Your task to perform on an android device: refresh tabs in the chrome app Image 0: 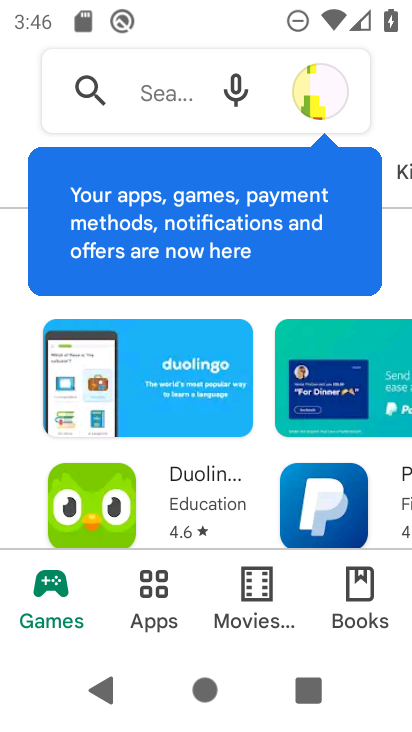
Step 0: drag from (346, 493) to (378, 290)
Your task to perform on an android device: refresh tabs in the chrome app Image 1: 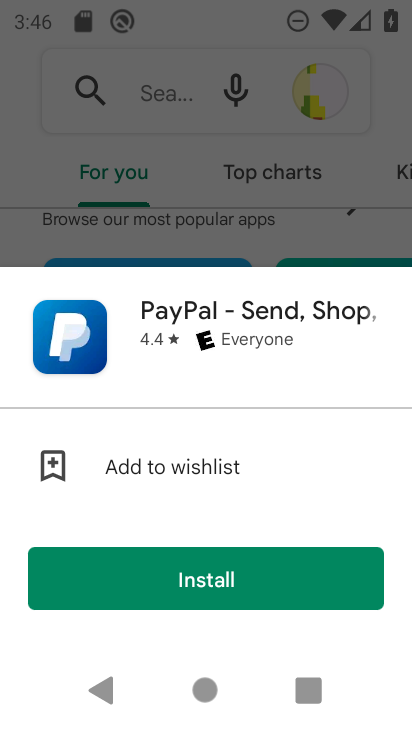
Step 1: press home button
Your task to perform on an android device: refresh tabs in the chrome app Image 2: 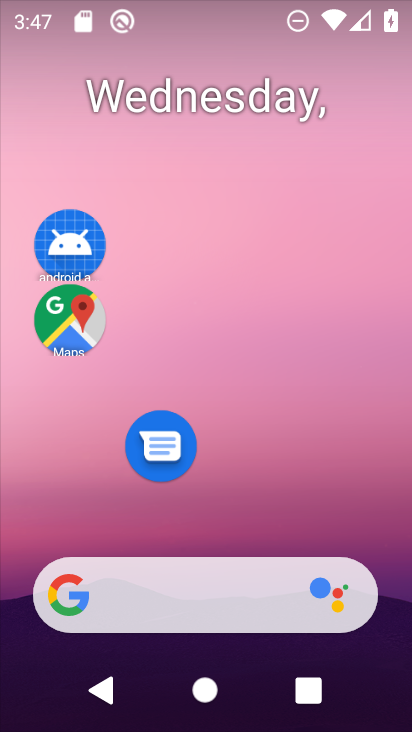
Step 2: drag from (290, 471) to (294, 270)
Your task to perform on an android device: refresh tabs in the chrome app Image 3: 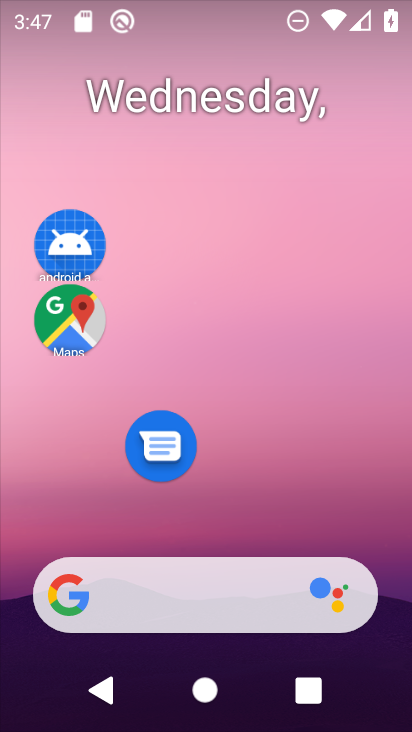
Step 3: drag from (273, 489) to (250, 147)
Your task to perform on an android device: refresh tabs in the chrome app Image 4: 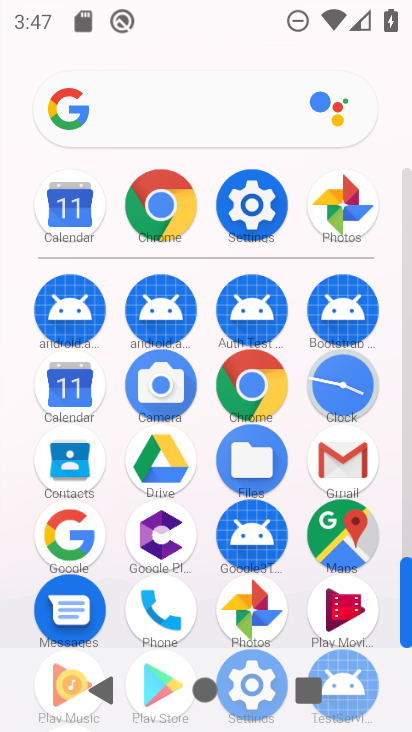
Step 4: click (166, 223)
Your task to perform on an android device: refresh tabs in the chrome app Image 5: 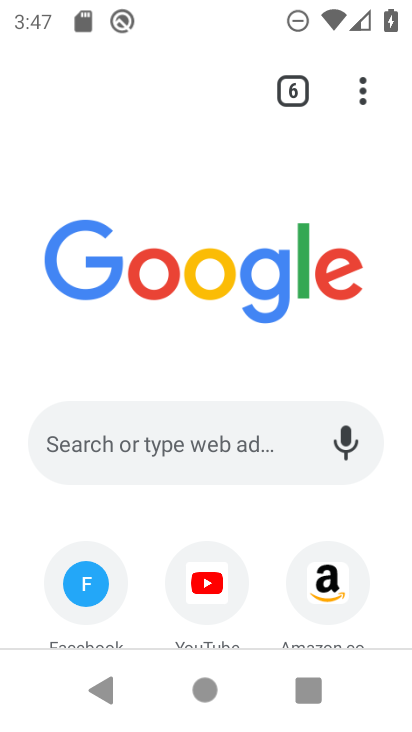
Step 5: click (370, 97)
Your task to perform on an android device: refresh tabs in the chrome app Image 6: 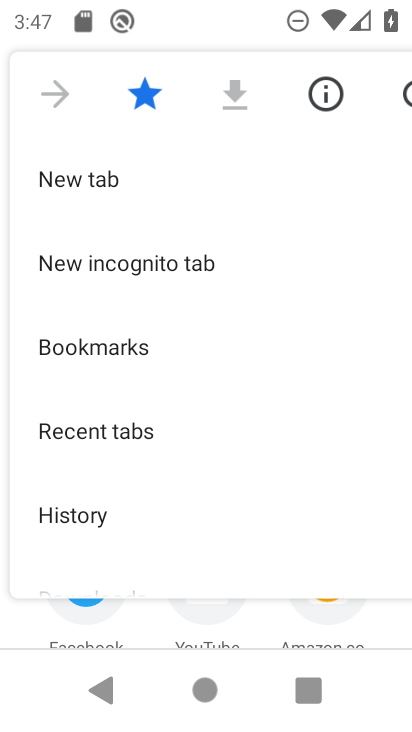
Step 6: click (408, 99)
Your task to perform on an android device: refresh tabs in the chrome app Image 7: 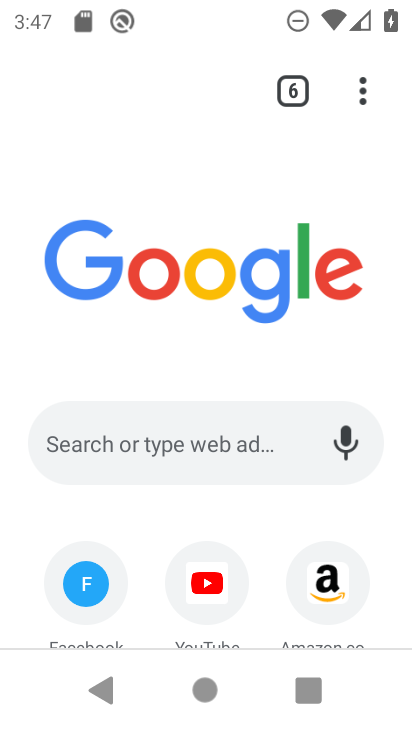
Step 7: task complete